Your task to perform on an android device: Open Youtube and go to the subscriptions tab Image 0: 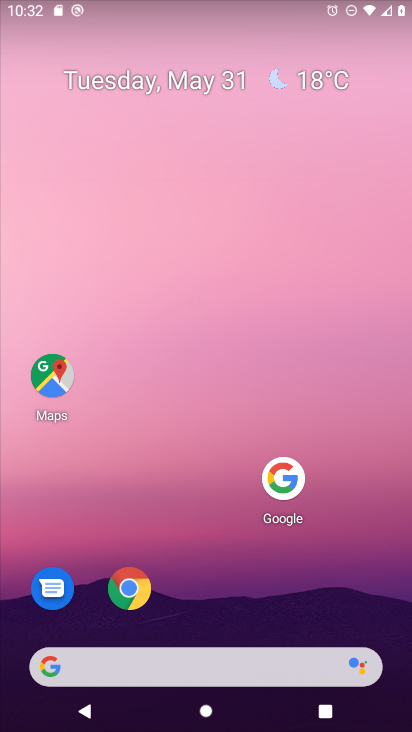
Step 0: press home button
Your task to perform on an android device: Open Youtube and go to the subscriptions tab Image 1: 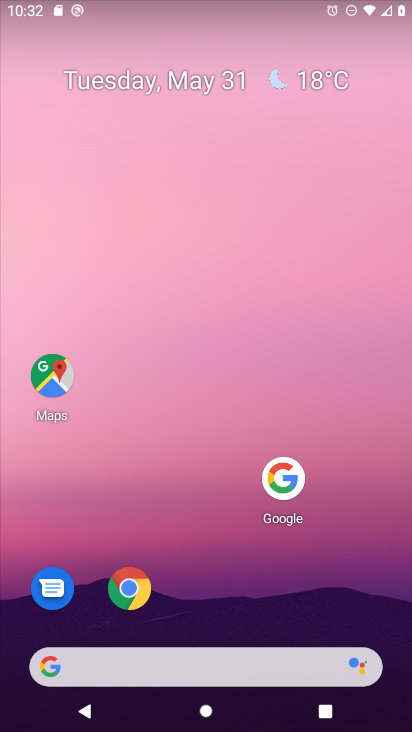
Step 1: drag from (184, 656) to (304, 155)
Your task to perform on an android device: Open Youtube and go to the subscriptions tab Image 2: 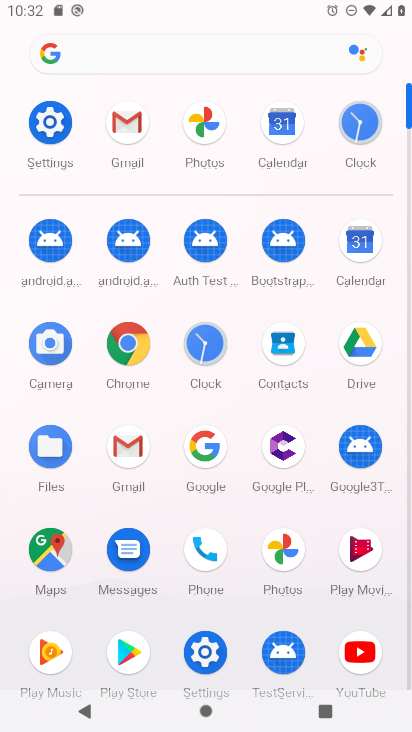
Step 2: click (361, 659)
Your task to perform on an android device: Open Youtube and go to the subscriptions tab Image 3: 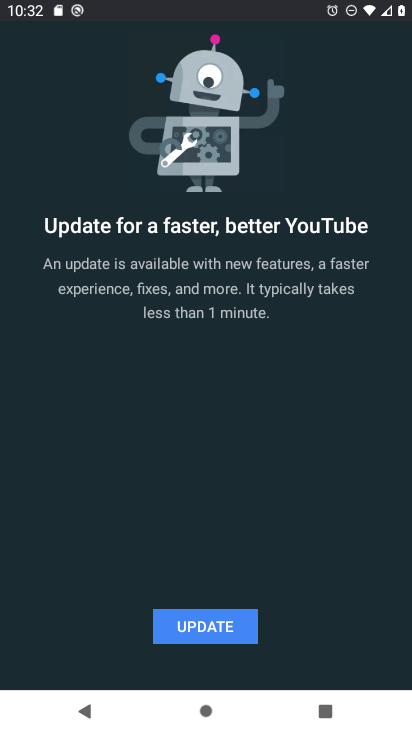
Step 3: click (207, 632)
Your task to perform on an android device: Open Youtube and go to the subscriptions tab Image 4: 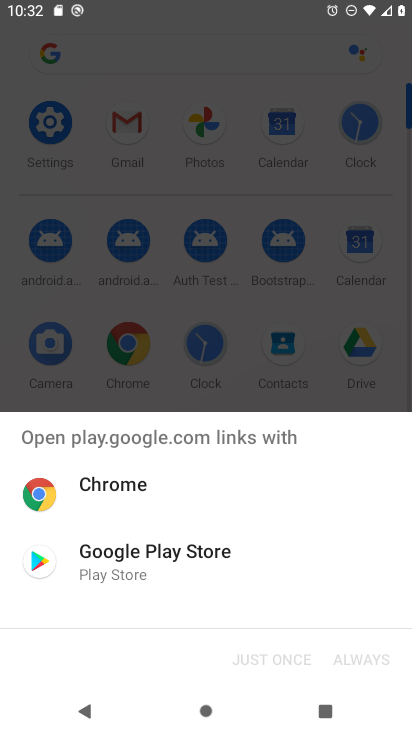
Step 4: click (158, 549)
Your task to perform on an android device: Open Youtube and go to the subscriptions tab Image 5: 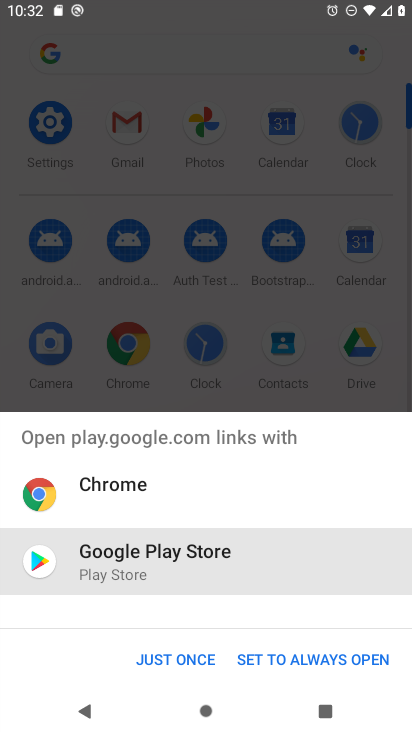
Step 5: click (183, 663)
Your task to perform on an android device: Open Youtube and go to the subscriptions tab Image 6: 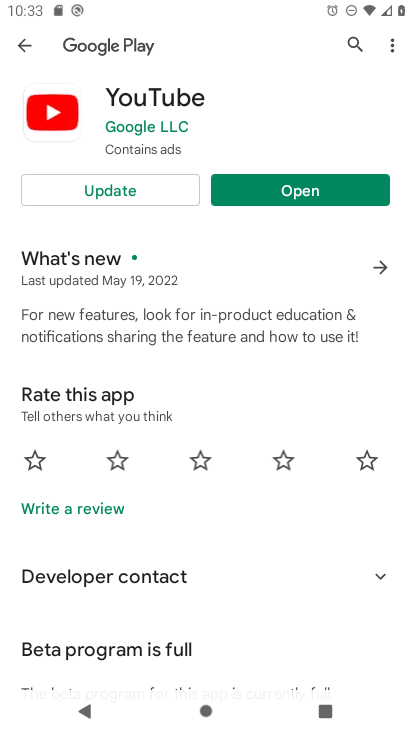
Step 6: click (140, 190)
Your task to perform on an android device: Open Youtube and go to the subscriptions tab Image 7: 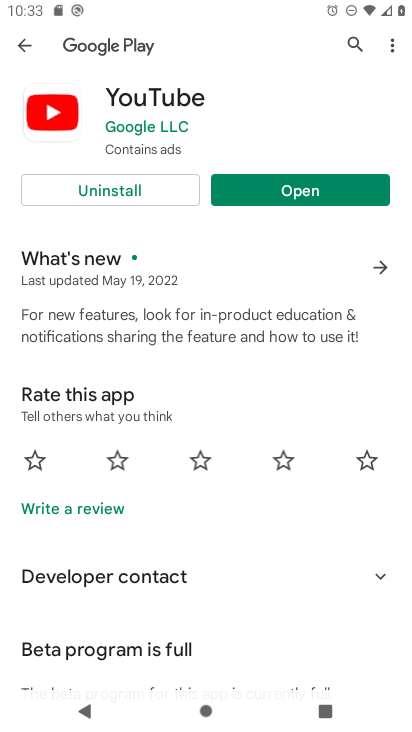
Step 7: click (299, 180)
Your task to perform on an android device: Open Youtube and go to the subscriptions tab Image 8: 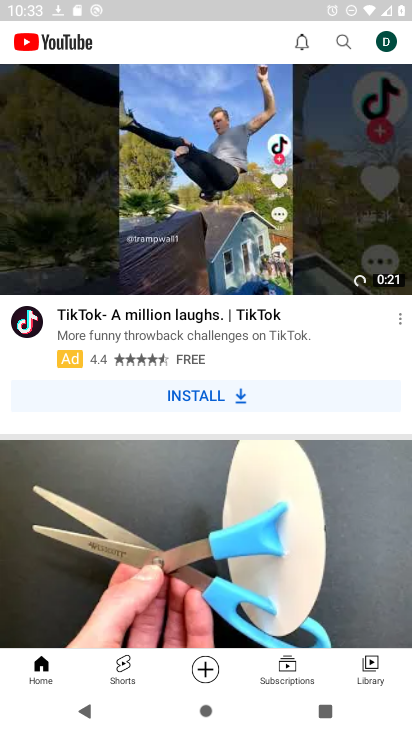
Step 8: click (285, 671)
Your task to perform on an android device: Open Youtube and go to the subscriptions tab Image 9: 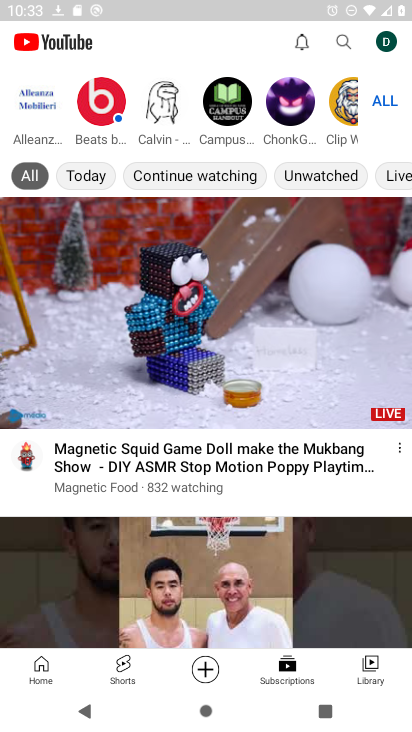
Step 9: task complete